Your task to perform on an android device: change the upload size in google photos Image 0: 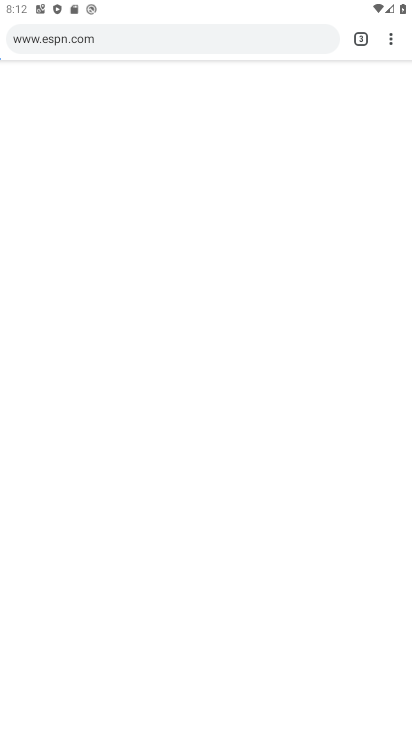
Step 0: press home button
Your task to perform on an android device: change the upload size in google photos Image 1: 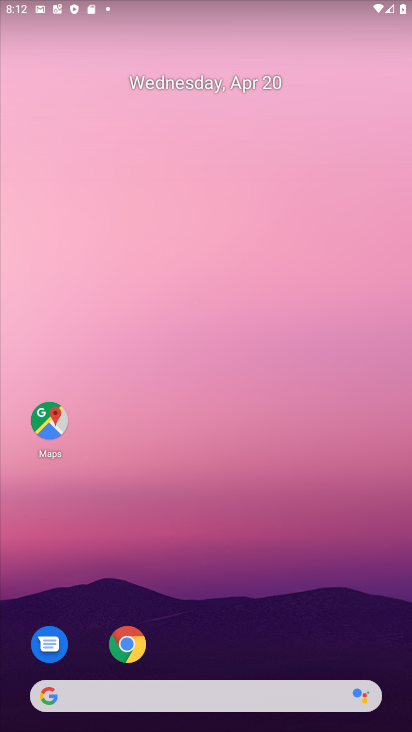
Step 1: drag from (338, 630) to (229, 41)
Your task to perform on an android device: change the upload size in google photos Image 2: 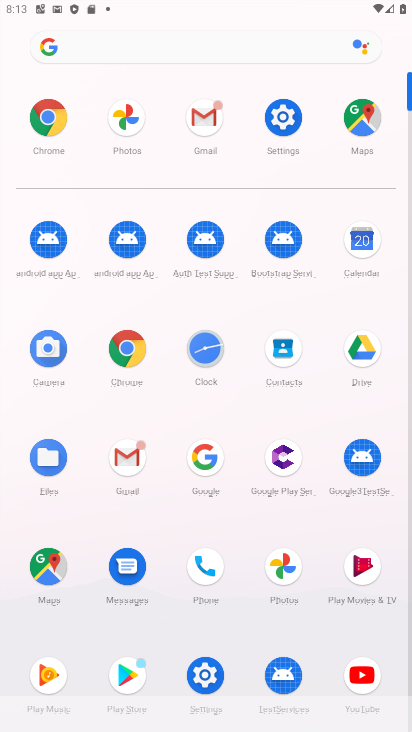
Step 2: click (281, 562)
Your task to perform on an android device: change the upload size in google photos Image 3: 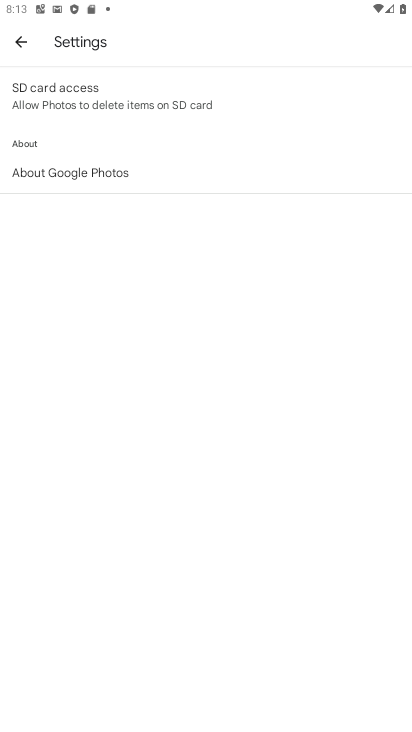
Step 3: click (13, 35)
Your task to perform on an android device: change the upload size in google photos Image 4: 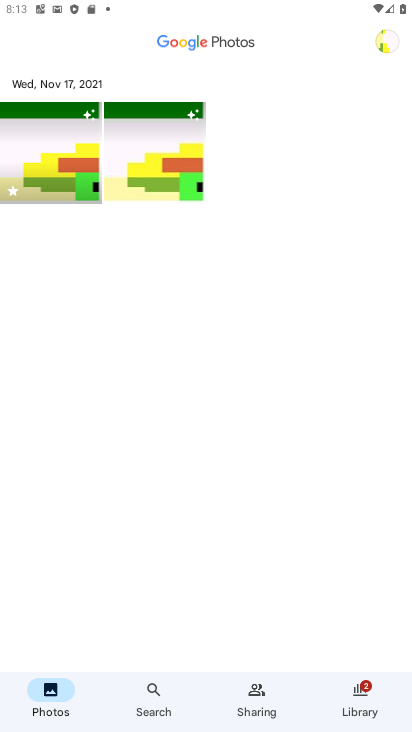
Step 4: click (394, 48)
Your task to perform on an android device: change the upload size in google photos Image 5: 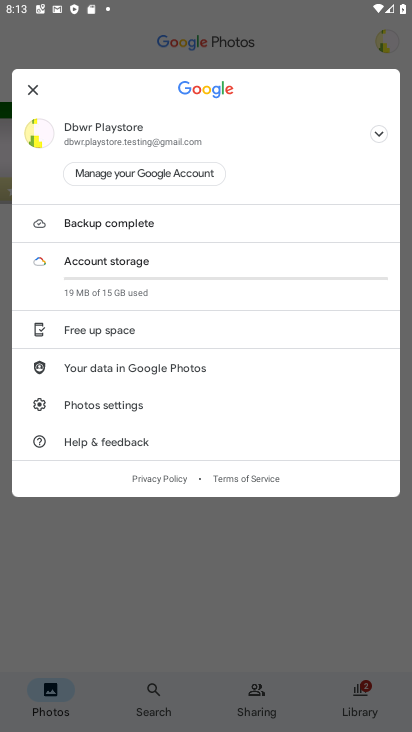
Step 5: click (132, 401)
Your task to perform on an android device: change the upload size in google photos Image 6: 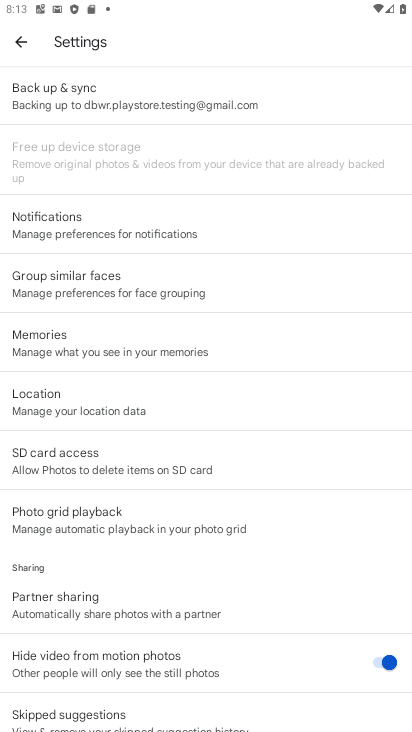
Step 6: click (176, 110)
Your task to perform on an android device: change the upload size in google photos Image 7: 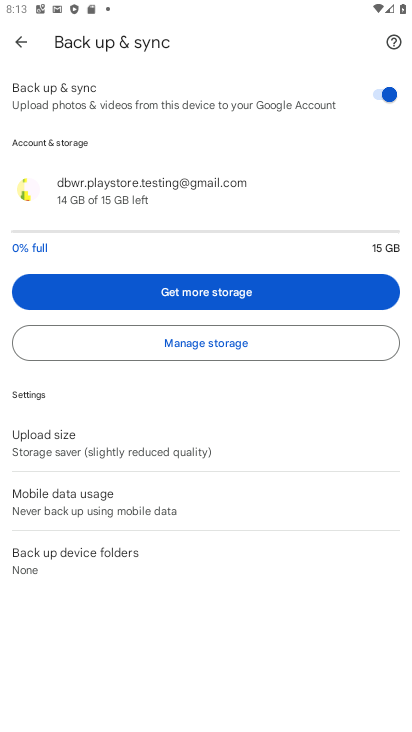
Step 7: click (102, 435)
Your task to perform on an android device: change the upload size in google photos Image 8: 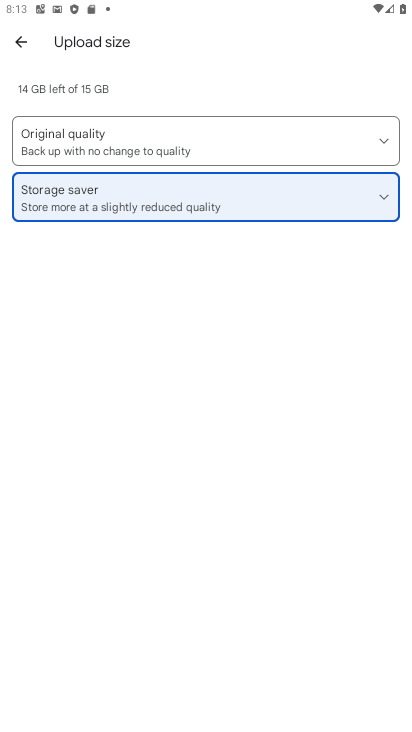
Step 8: click (380, 132)
Your task to perform on an android device: change the upload size in google photos Image 9: 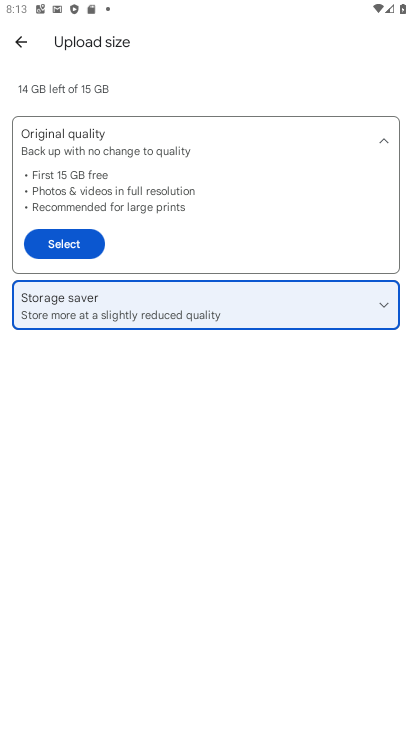
Step 9: click (57, 241)
Your task to perform on an android device: change the upload size in google photos Image 10: 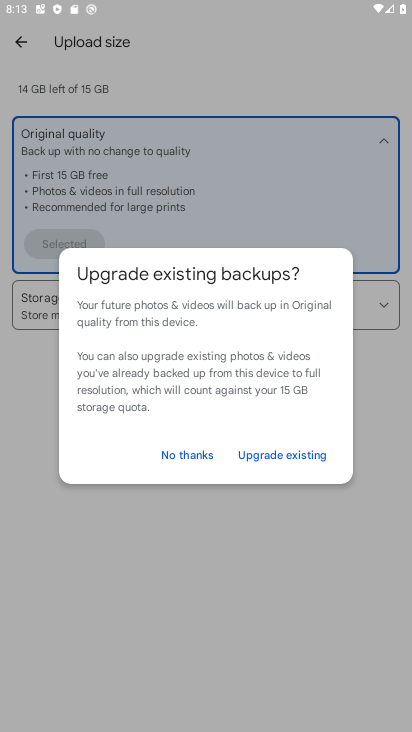
Step 10: click (214, 454)
Your task to perform on an android device: change the upload size in google photos Image 11: 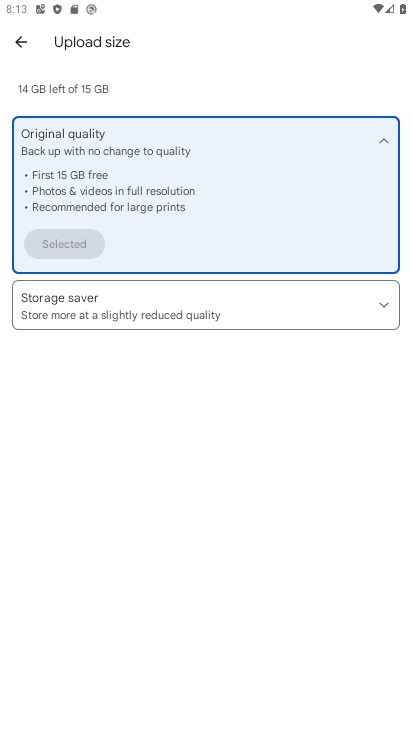
Step 11: task complete